Your task to perform on an android device: Turn on the flashlight Image 0: 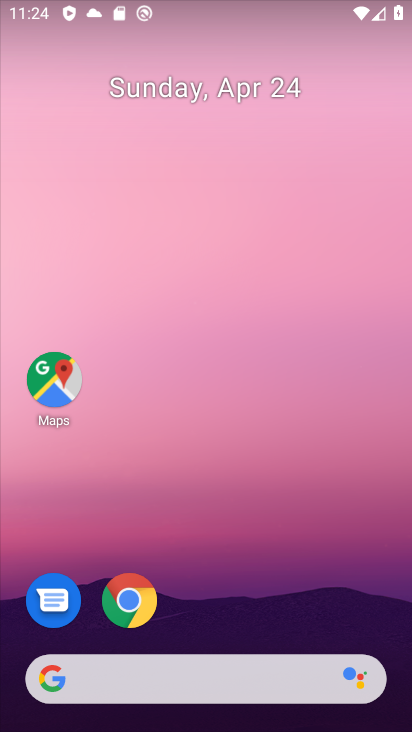
Step 0: drag from (277, 600) to (225, 172)
Your task to perform on an android device: Turn on the flashlight Image 1: 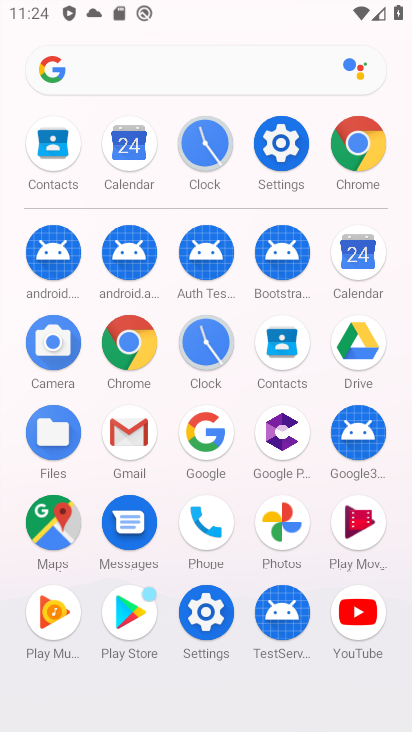
Step 1: click (284, 127)
Your task to perform on an android device: Turn on the flashlight Image 2: 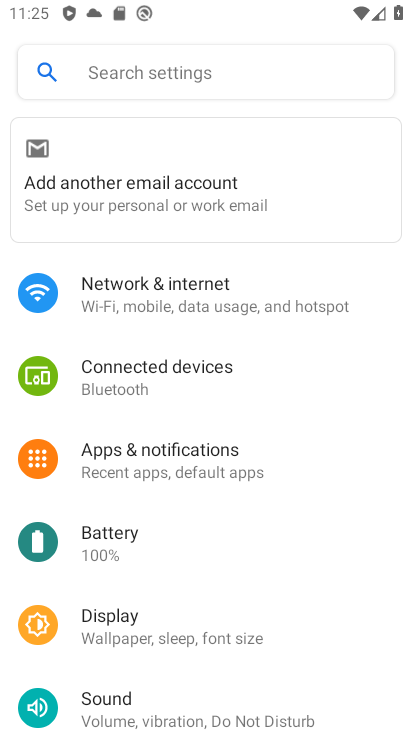
Step 2: drag from (182, 508) to (96, 143)
Your task to perform on an android device: Turn on the flashlight Image 3: 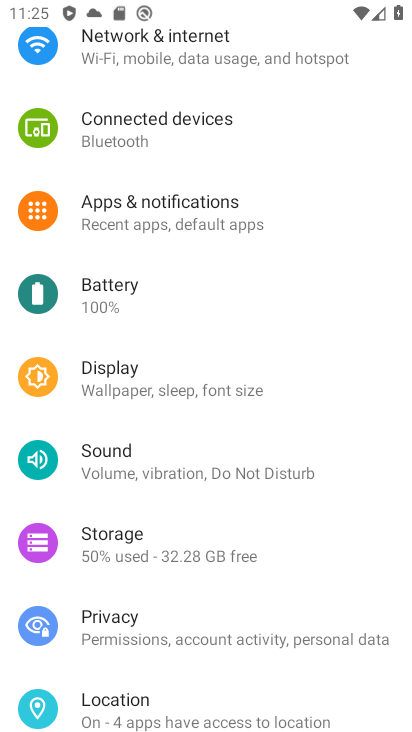
Step 3: drag from (158, 436) to (82, 215)
Your task to perform on an android device: Turn on the flashlight Image 4: 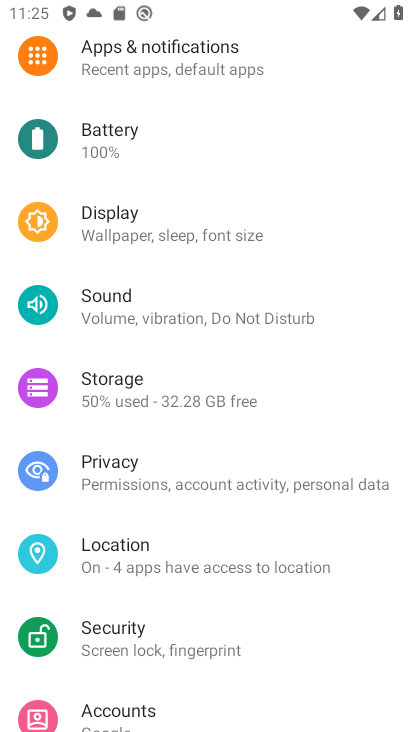
Step 4: drag from (193, 428) to (159, 29)
Your task to perform on an android device: Turn on the flashlight Image 5: 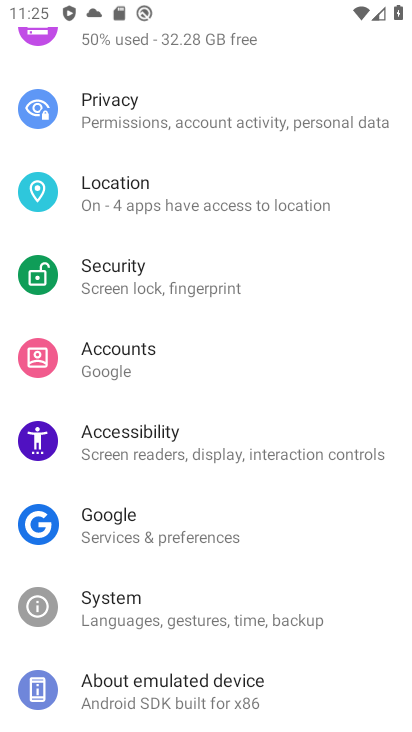
Step 5: drag from (178, 161) to (288, 518)
Your task to perform on an android device: Turn on the flashlight Image 6: 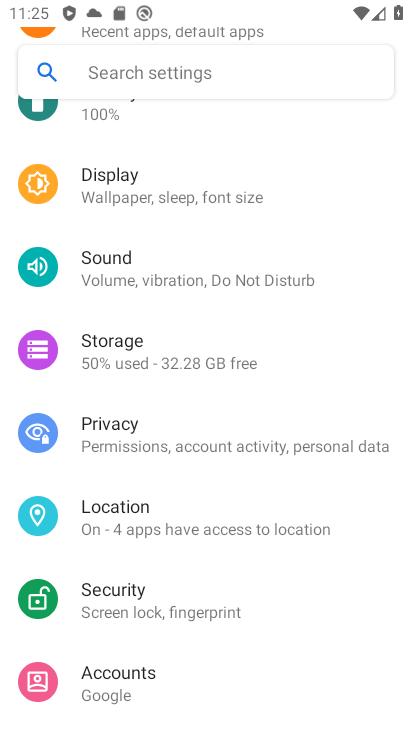
Step 6: drag from (183, 142) to (204, 335)
Your task to perform on an android device: Turn on the flashlight Image 7: 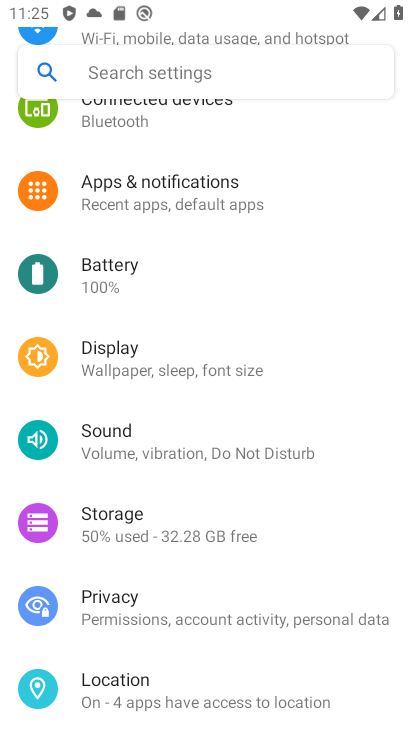
Step 7: click (114, 361)
Your task to perform on an android device: Turn on the flashlight Image 8: 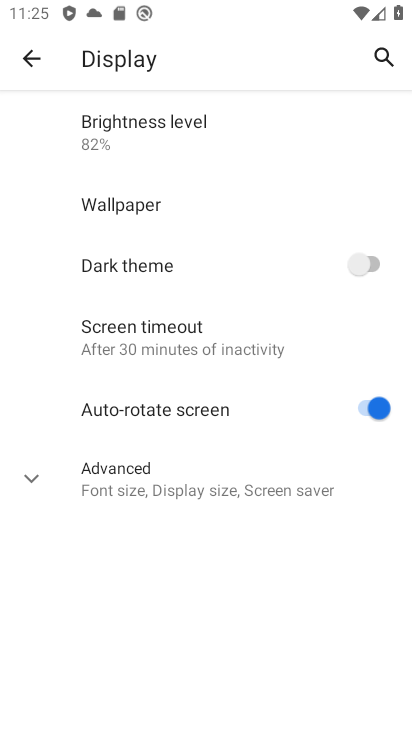
Step 8: click (26, 51)
Your task to perform on an android device: Turn on the flashlight Image 9: 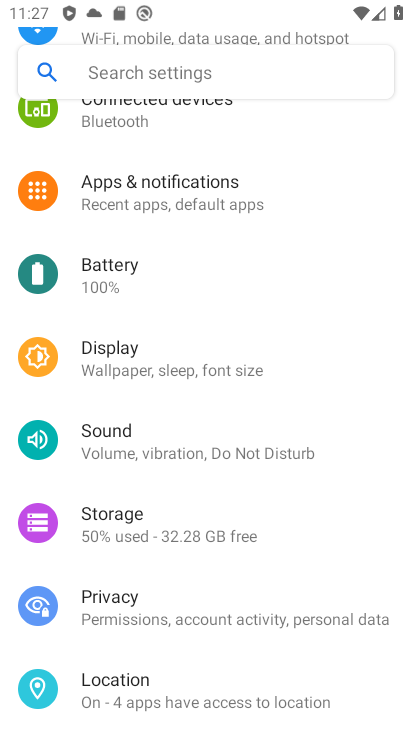
Step 9: task complete